Your task to perform on an android device: open device folders in google photos Image 0: 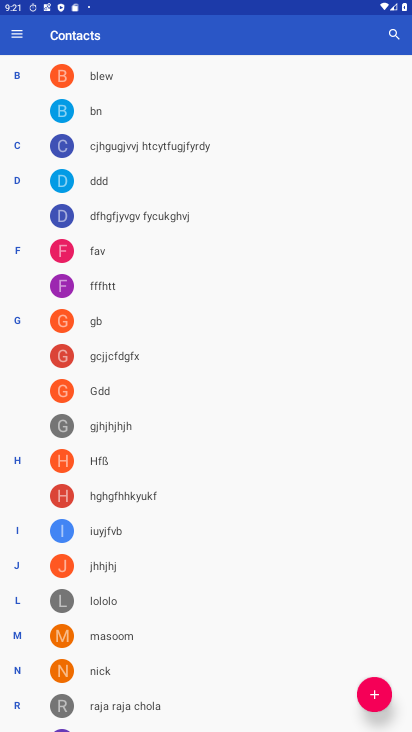
Step 0: press home button
Your task to perform on an android device: open device folders in google photos Image 1: 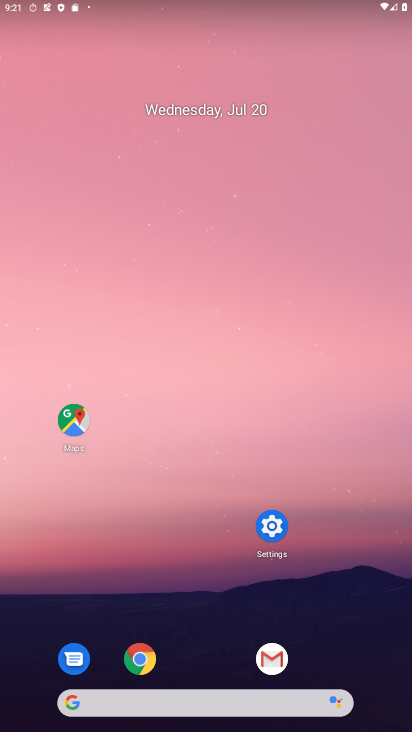
Step 1: drag from (250, 716) to (300, 128)
Your task to perform on an android device: open device folders in google photos Image 2: 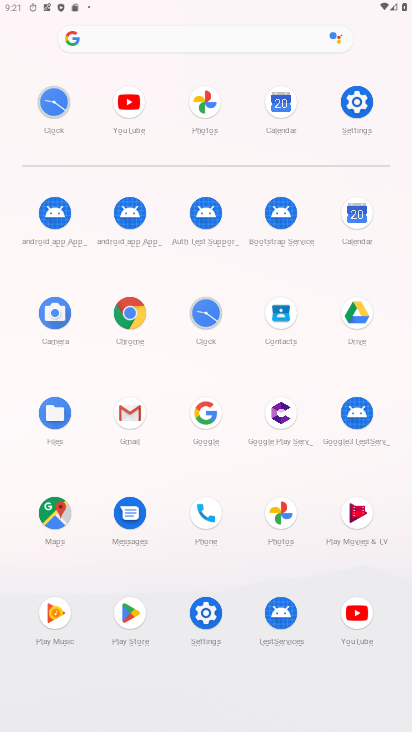
Step 2: click (273, 523)
Your task to perform on an android device: open device folders in google photos Image 3: 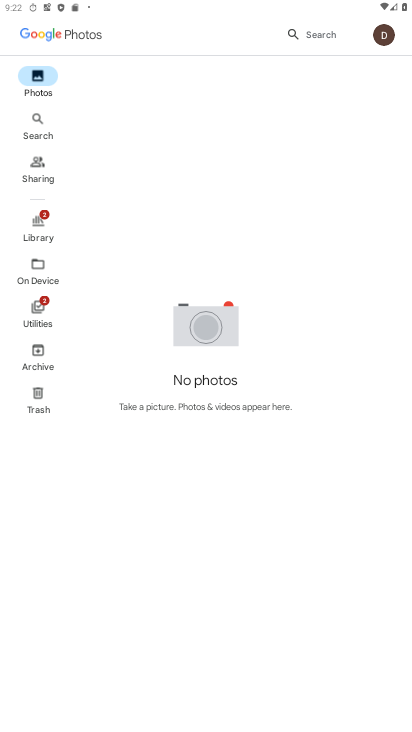
Step 3: click (286, 31)
Your task to perform on an android device: open device folders in google photos Image 4: 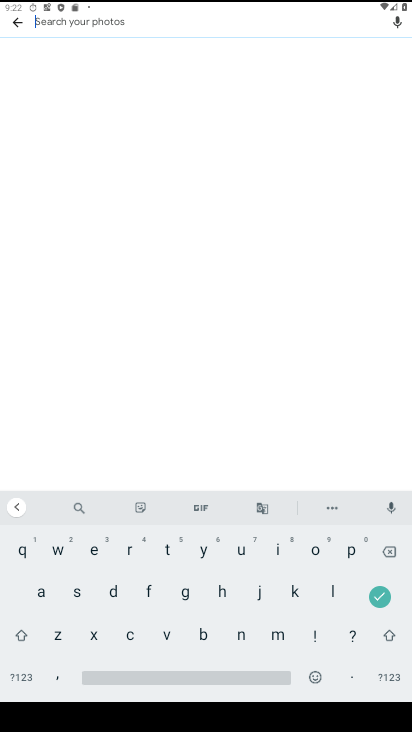
Step 4: click (114, 583)
Your task to perform on an android device: open device folders in google photos Image 5: 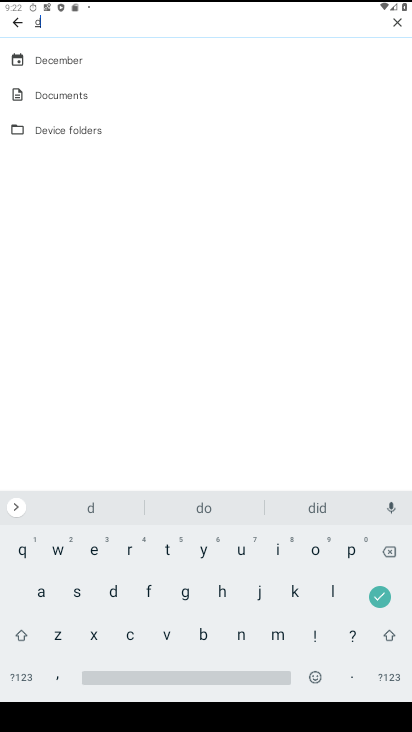
Step 5: click (108, 126)
Your task to perform on an android device: open device folders in google photos Image 6: 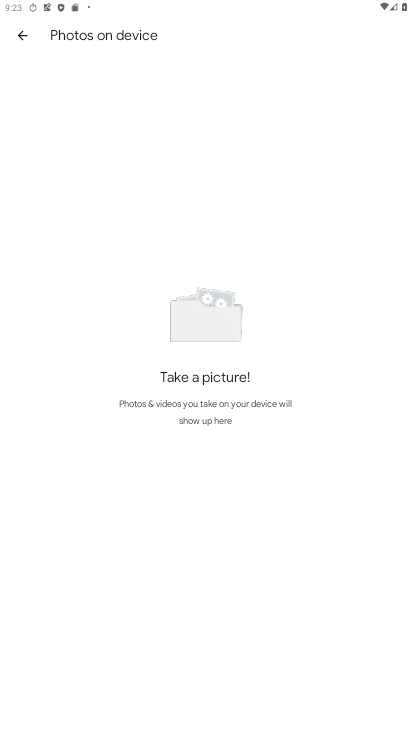
Step 6: task complete